Your task to perform on an android device: open the mobile data screen to see how much data has been used Image 0: 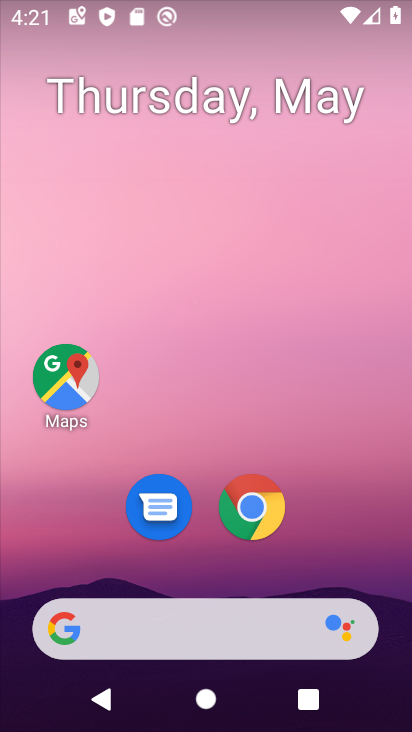
Step 0: drag from (229, 590) to (247, 60)
Your task to perform on an android device: open the mobile data screen to see how much data has been used Image 1: 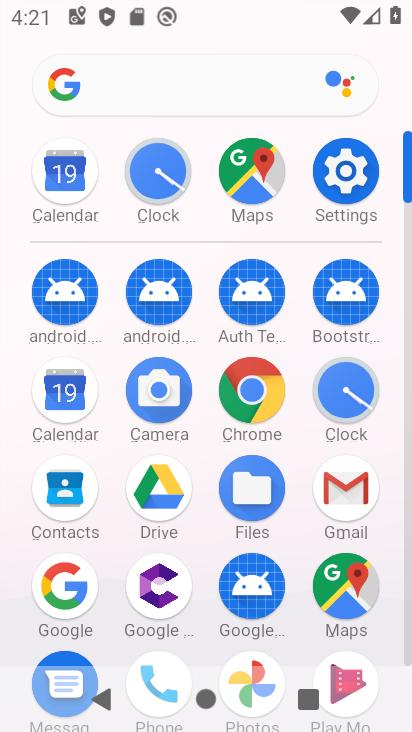
Step 1: click (362, 161)
Your task to perform on an android device: open the mobile data screen to see how much data has been used Image 2: 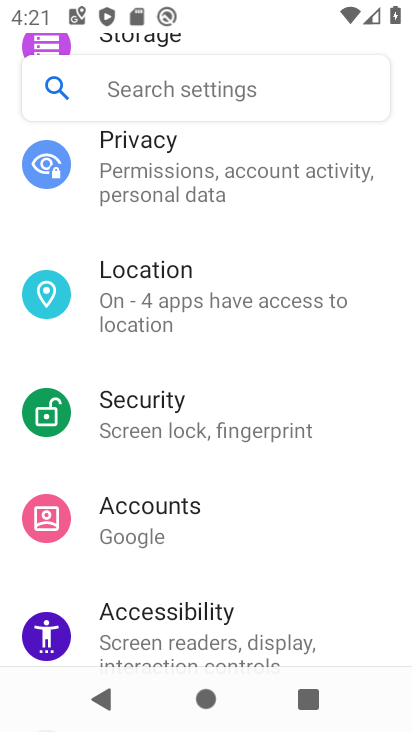
Step 2: drag from (212, 294) to (233, 554)
Your task to perform on an android device: open the mobile data screen to see how much data has been used Image 3: 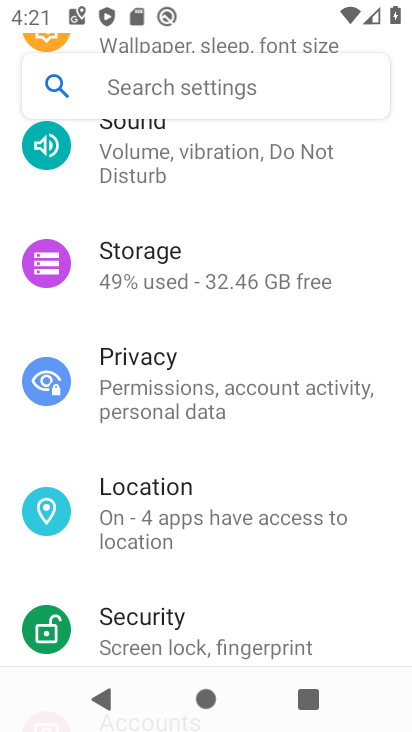
Step 3: drag from (267, 283) to (279, 554)
Your task to perform on an android device: open the mobile data screen to see how much data has been used Image 4: 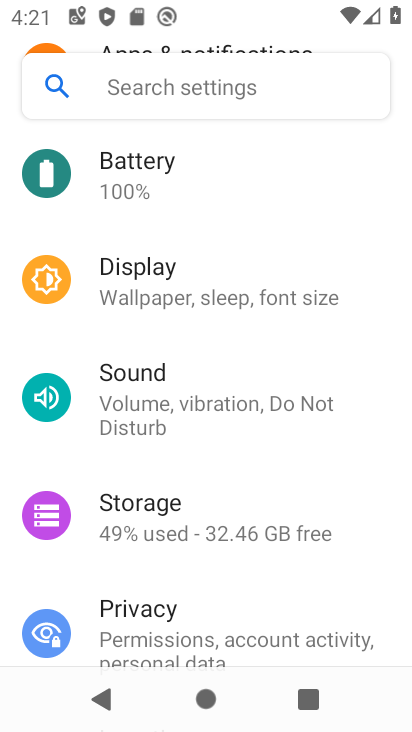
Step 4: drag from (274, 211) to (280, 447)
Your task to perform on an android device: open the mobile data screen to see how much data has been used Image 5: 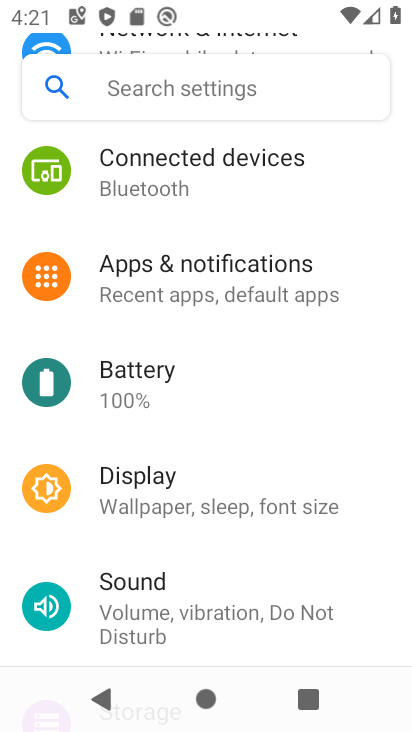
Step 5: drag from (243, 201) to (206, 494)
Your task to perform on an android device: open the mobile data screen to see how much data has been used Image 6: 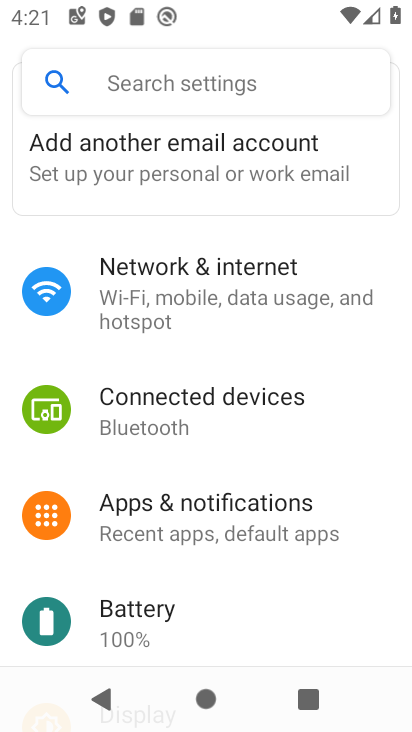
Step 6: click (187, 268)
Your task to perform on an android device: open the mobile data screen to see how much data has been used Image 7: 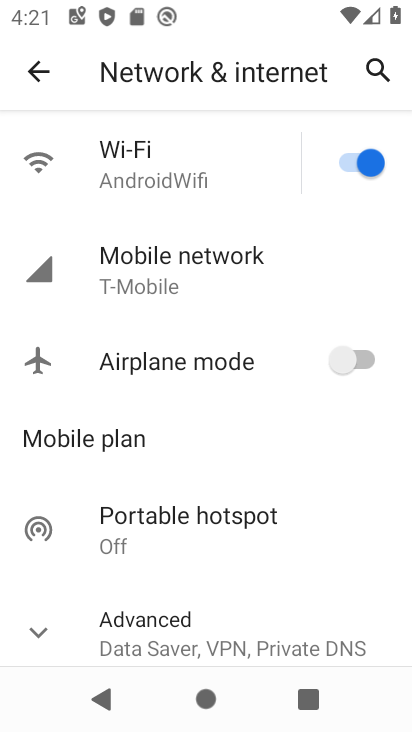
Step 7: click (186, 269)
Your task to perform on an android device: open the mobile data screen to see how much data has been used Image 8: 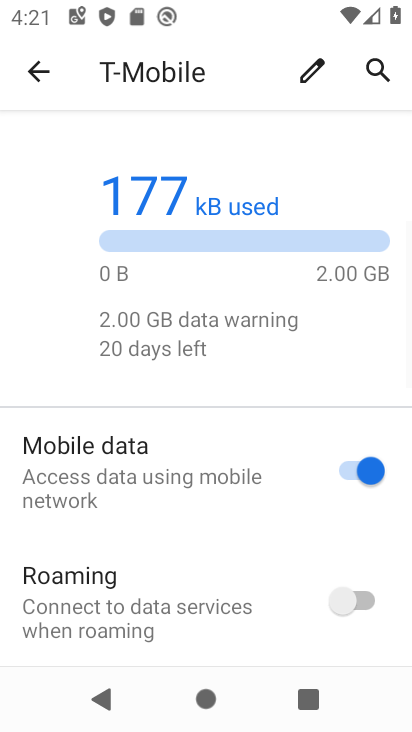
Step 8: drag from (224, 522) to (190, 274)
Your task to perform on an android device: open the mobile data screen to see how much data has been used Image 9: 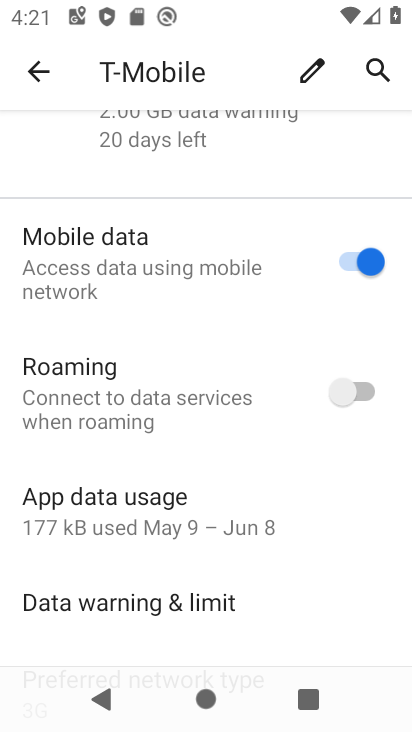
Step 9: click (153, 490)
Your task to perform on an android device: open the mobile data screen to see how much data has been used Image 10: 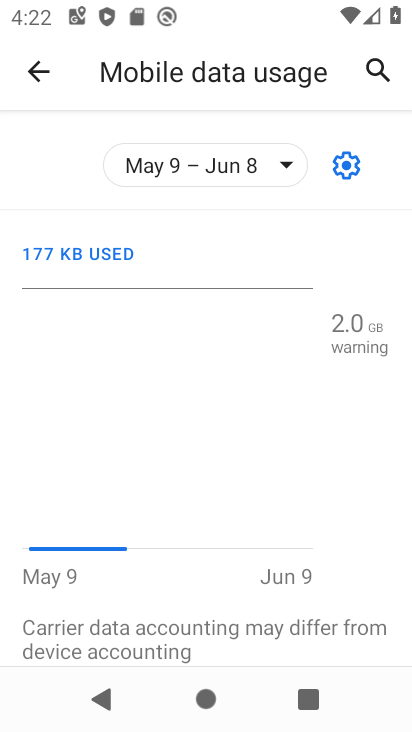
Step 10: task complete